Your task to perform on an android device: all mails in gmail Image 0: 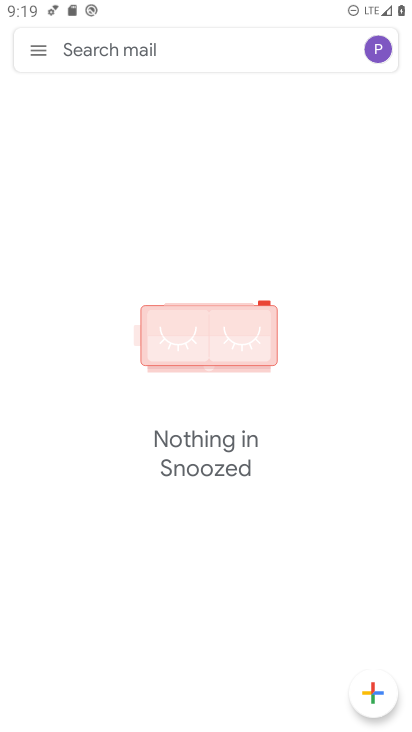
Step 0: click (25, 48)
Your task to perform on an android device: all mails in gmail Image 1: 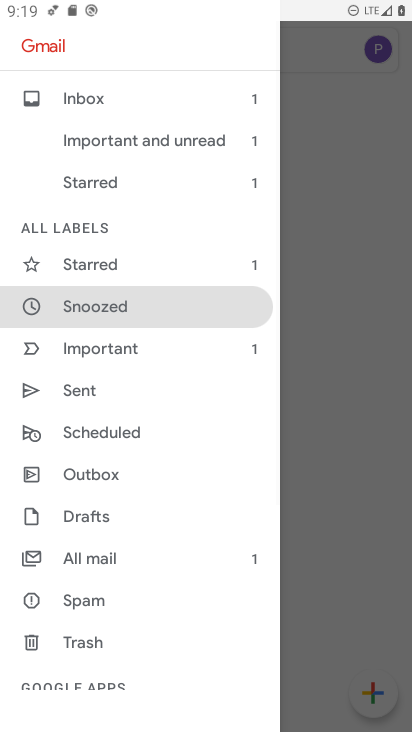
Step 1: click (115, 554)
Your task to perform on an android device: all mails in gmail Image 2: 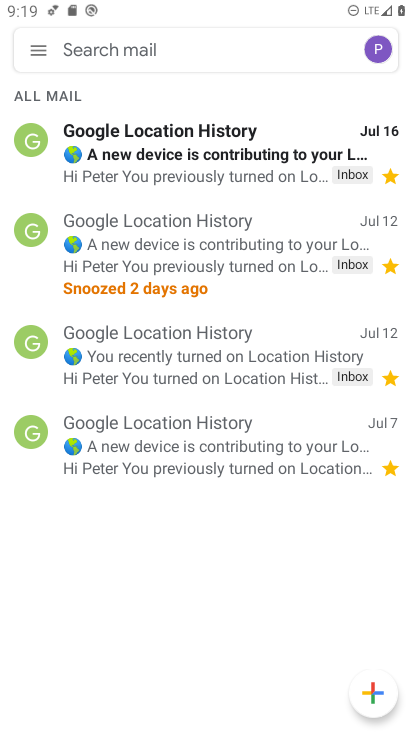
Step 2: task complete